Your task to perform on an android device: What's the weather going to be tomorrow? Image 0: 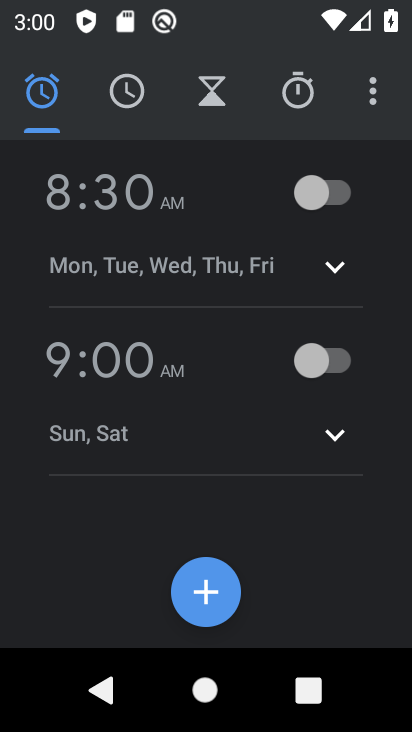
Step 0: drag from (332, 667) to (277, 143)
Your task to perform on an android device: What's the weather going to be tomorrow? Image 1: 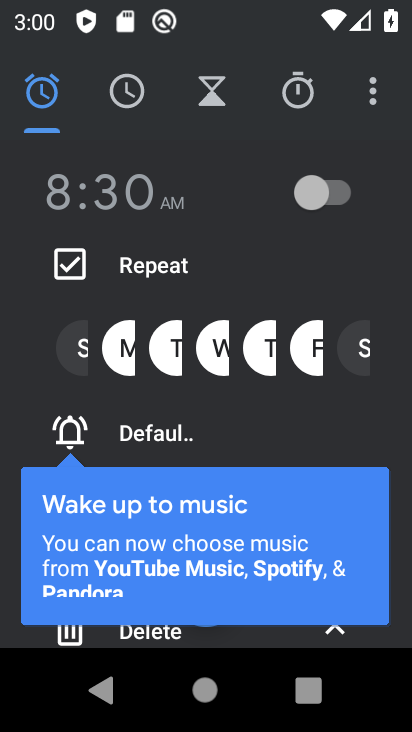
Step 1: press back button
Your task to perform on an android device: What's the weather going to be tomorrow? Image 2: 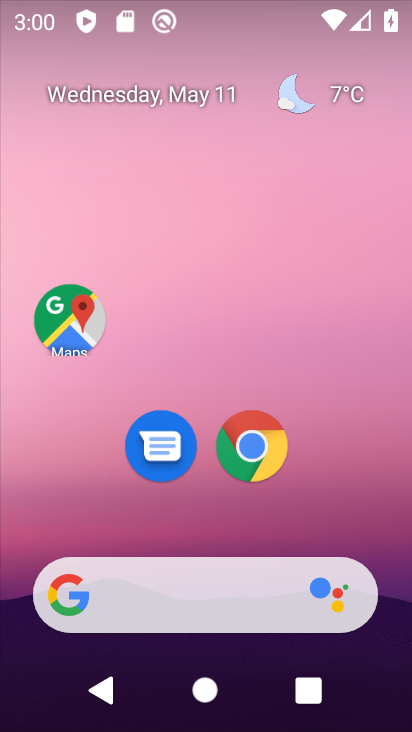
Step 2: drag from (367, 559) to (104, 123)
Your task to perform on an android device: What's the weather going to be tomorrow? Image 3: 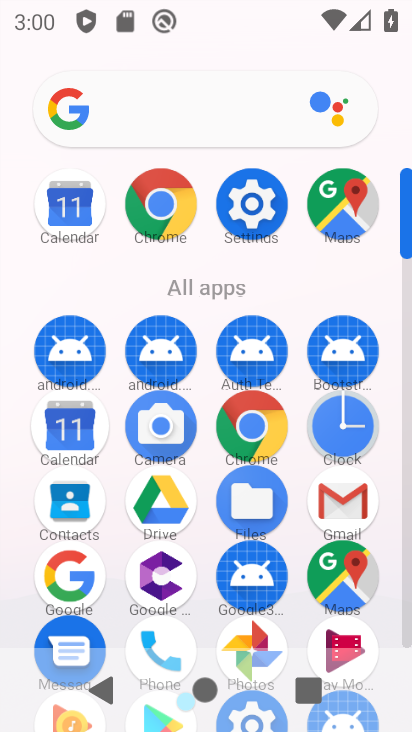
Step 3: press home button
Your task to perform on an android device: What's the weather going to be tomorrow? Image 4: 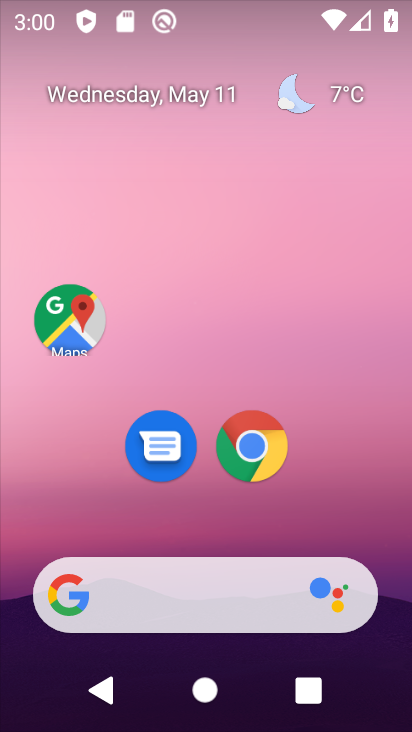
Step 4: click (292, 99)
Your task to perform on an android device: What's the weather going to be tomorrow? Image 5: 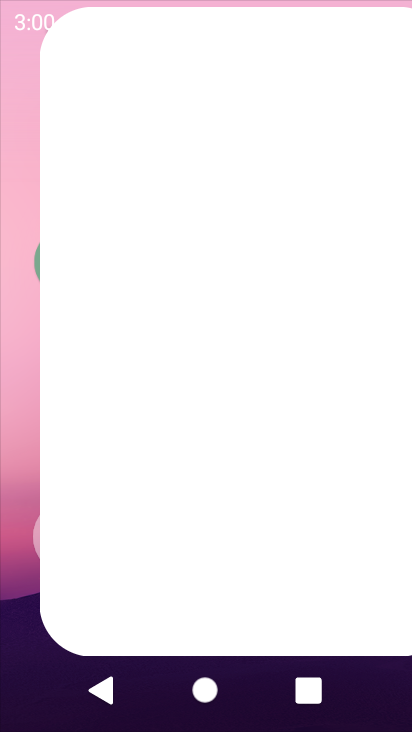
Step 5: click (292, 99)
Your task to perform on an android device: What's the weather going to be tomorrow? Image 6: 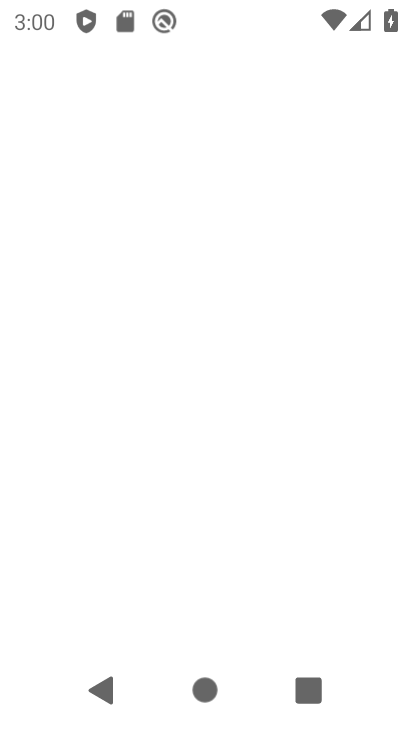
Step 6: click (292, 99)
Your task to perform on an android device: What's the weather going to be tomorrow? Image 7: 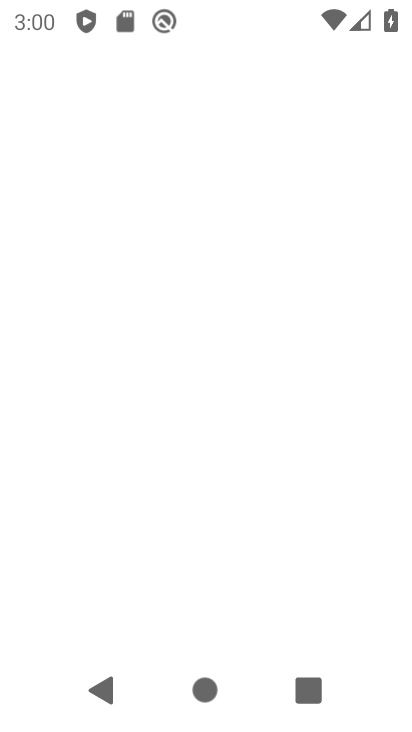
Step 7: click (292, 99)
Your task to perform on an android device: What's the weather going to be tomorrow? Image 8: 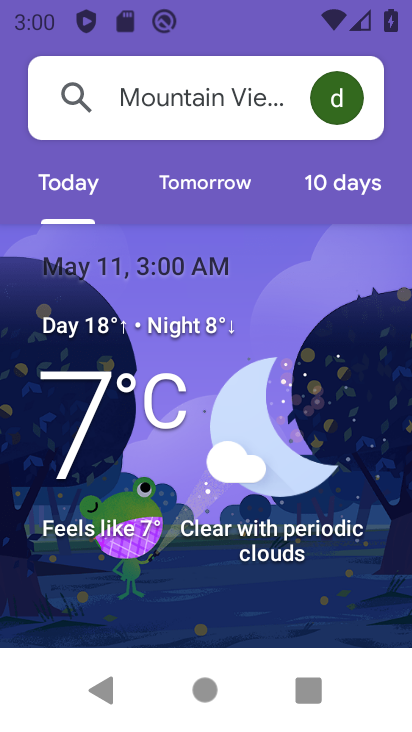
Step 8: drag from (188, 479) to (129, 144)
Your task to perform on an android device: What's the weather going to be tomorrow? Image 9: 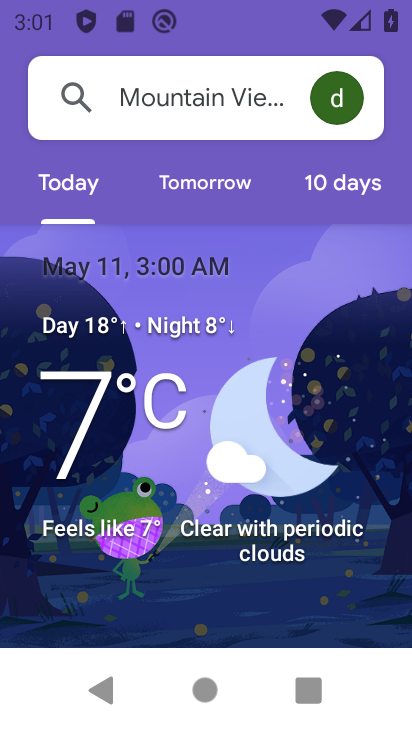
Step 9: click (205, 186)
Your task to perform on an android device: What's the weather going to be tomorrow? Image 10: 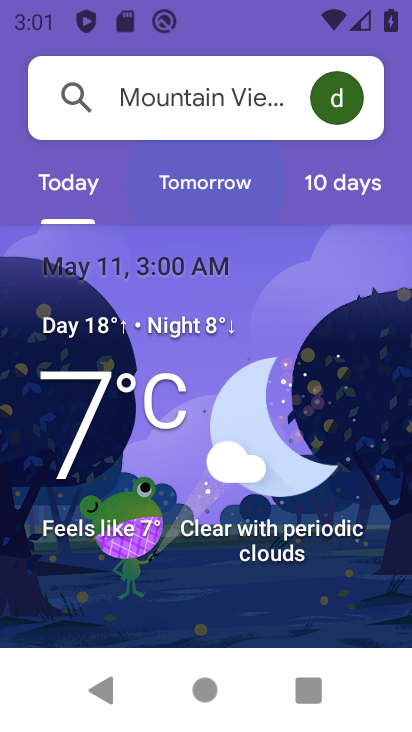
Step 10: click (207, 184)
Your task to perform on an android device: What's the weather going to be tomorrow? Image 11: 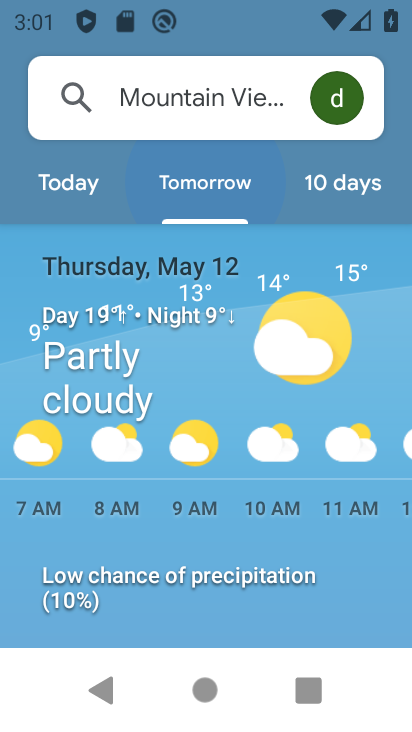
Step 11: click (209, 183)
Your task to perform on an android device: What's the weather going to be tomorrow? Image 12: 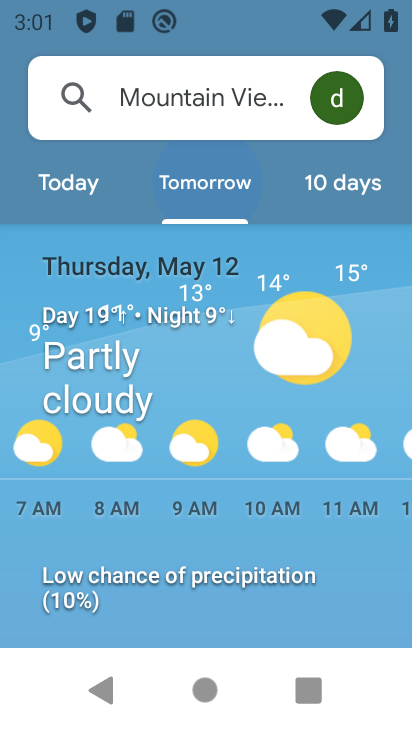
Step 12: click (209, 183)
Your task to perform on an android device: What's the weather going to be tomorrow? Image 13: 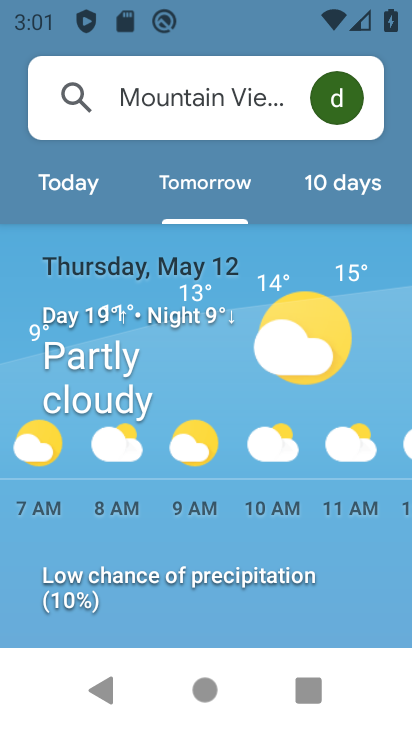
Step 13: drag from (272, 618) to (246, 244)
Your task to perform on an android device: What's the weather going to be tomorrow? Image 14: 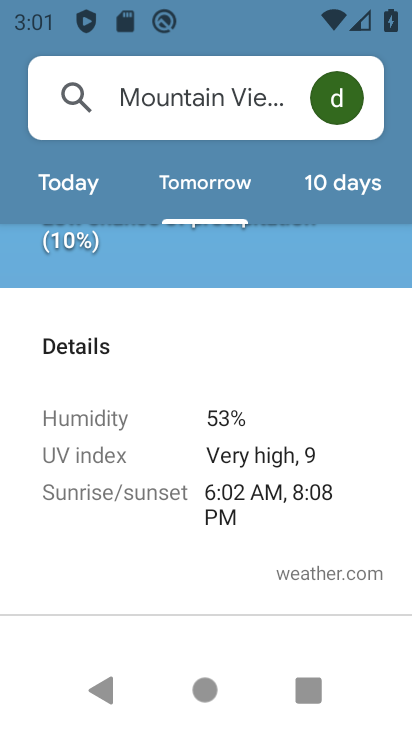
Step 14: drag from (294, 585) to (275, 284)
Your task to perform on an android device: What's the weather going to be tomorrow? Image 15: 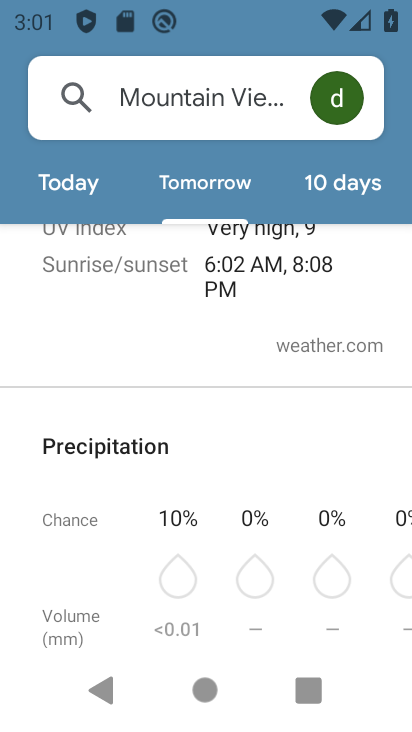
Step 15: drag from (266, 515) to (269, 147)
Your task to perform on an android device: What's the weather going to be tomorrow? Image 16: 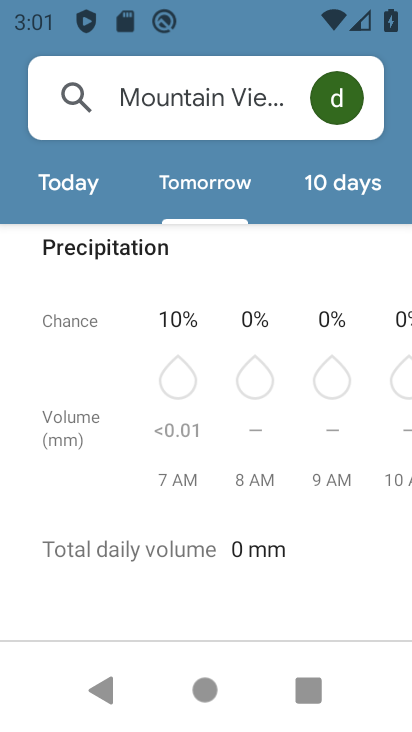
Step 16: drag from (237, 544) to (175, 233)
Your task to perform on an android device: What's the weather going to be tomorrow? Image 17: 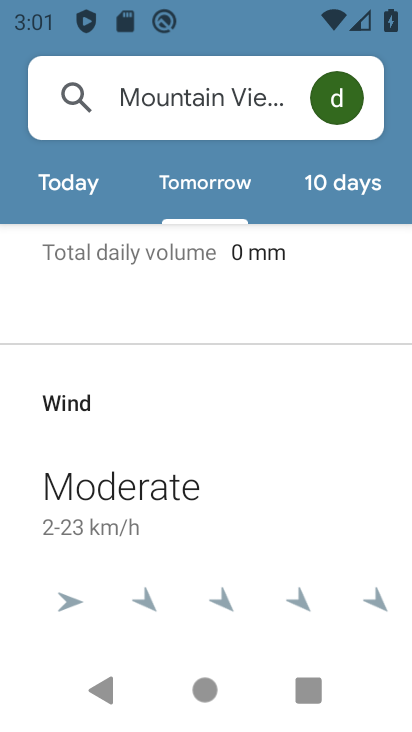
Step 17: drag from (177, 580) to (174, 273)
Your task to perform on an android device: What's the weather going to be tomorrow? Image 18: 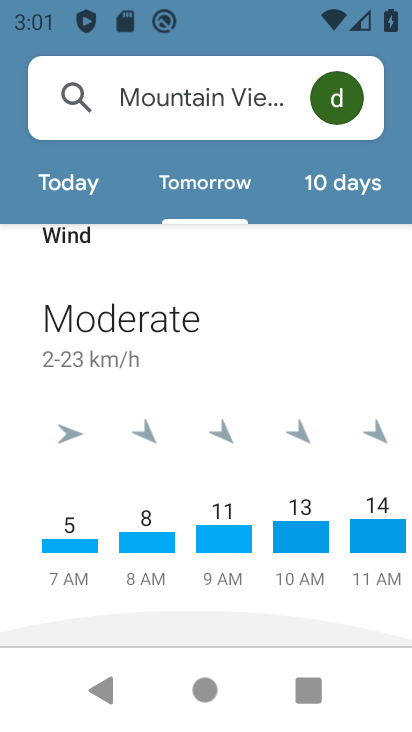
Step 18: drag from (261, 643) to (171, 224)
Your task to perform on an android device: What's the weather going to be tomorrow? Image 19: 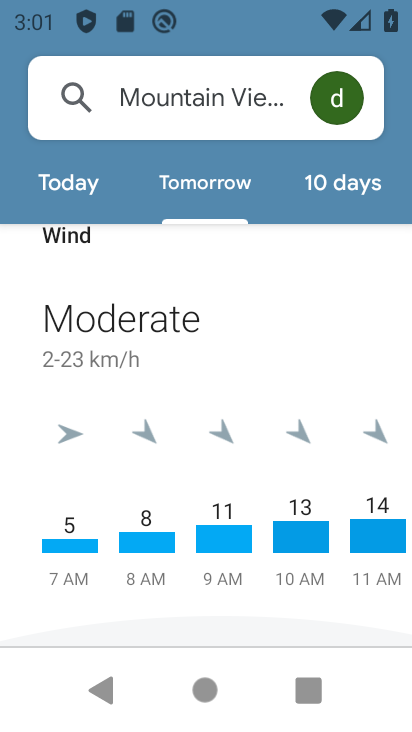
Step 19: drag from (214, 594) to (158, 281)
Your task to perform on an android device: What's the weather going to be tomorrow? Image 20: 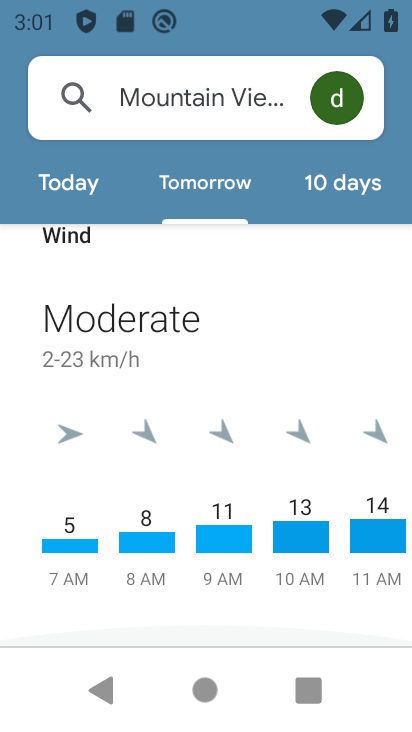
Step 20: drag from (219, 555) to (257, 405)
Your task to perform on an android device: What's the weather going to be tomorrow? Image 21: 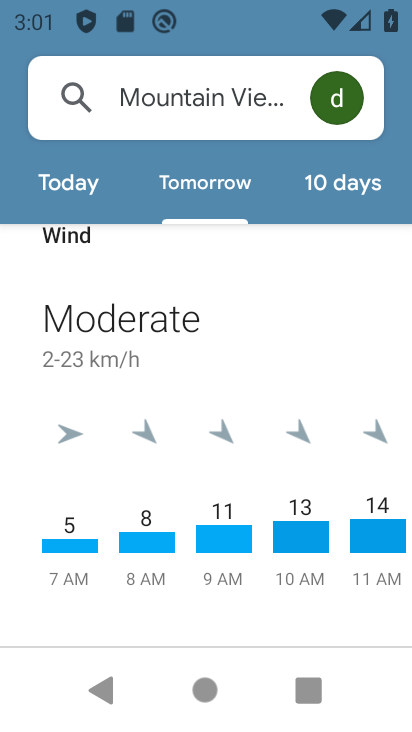
Step 21: drag from (295, 397) to (295, 278)
Your task to perform on an android device: What's the weather going to be tomorrow? Image 22: 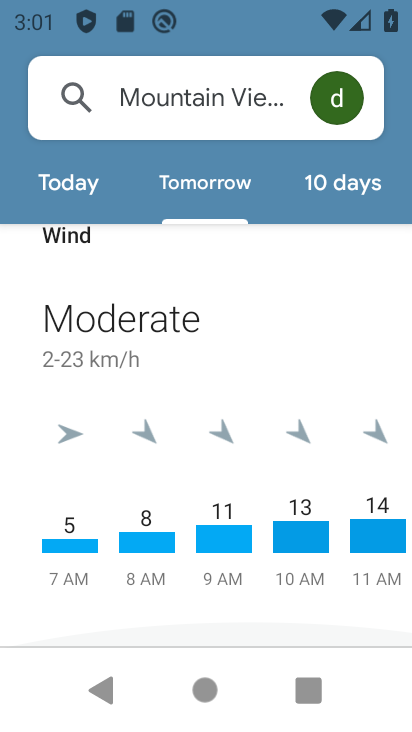
Step 22: drag from (306, 388) to (285, 307)
Your task to perform on an android device: What's the weather going to be tomorrow? Image 23: 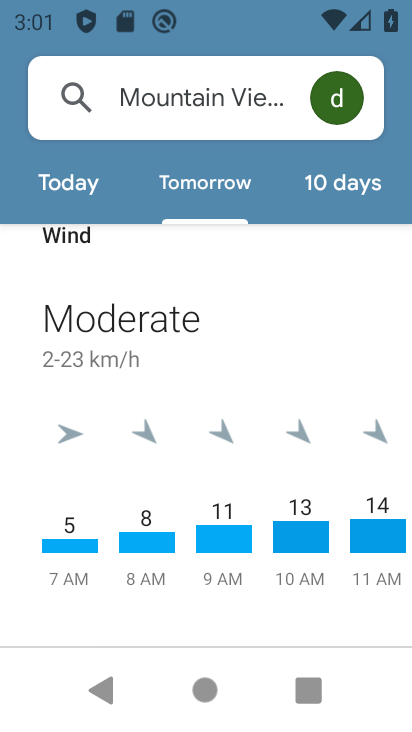
Step 23: drag from (259, 553) to (216, 419)
Your task to perform on an android device: What's the weather going to be tomorrow? Image 24: 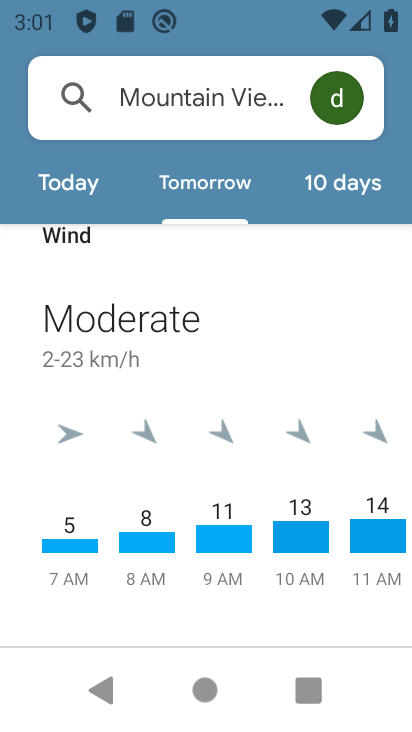
Step 24: drag from (246, 592) to (244, 364)
Your task to perform on an android device: What's the weather going to be tomorrow? Image 25: 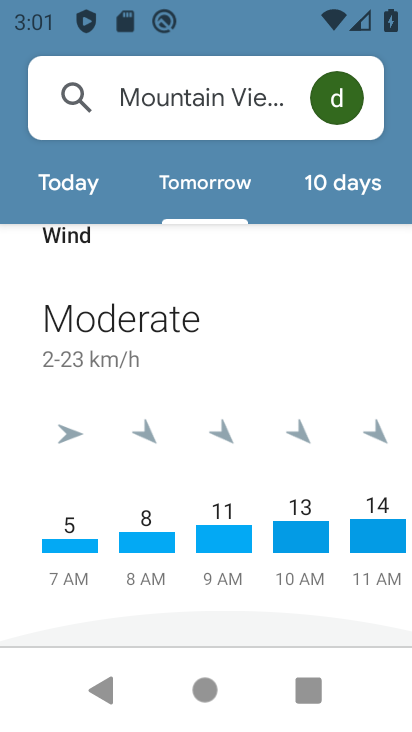
Step 25: drag from (278, 572) to (254, 373)
Your task to perform on an android device: What's the weather going to be tomorrow? Image 26: 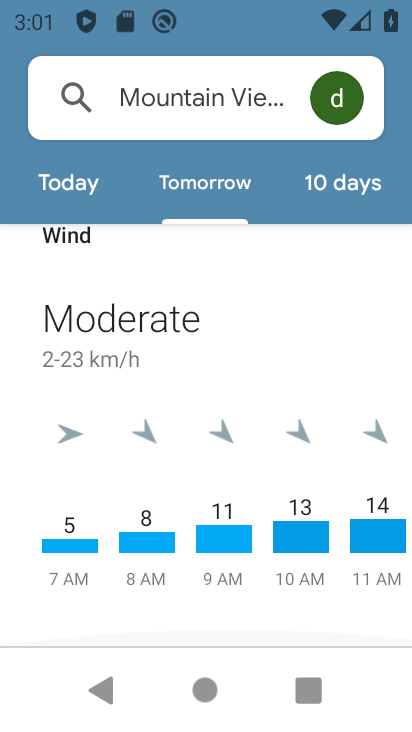
Step 26: drag from (284, 539) to (233, 238)
Your task to perform on an android device: What's the weather going to be tomorrow? Image 27: 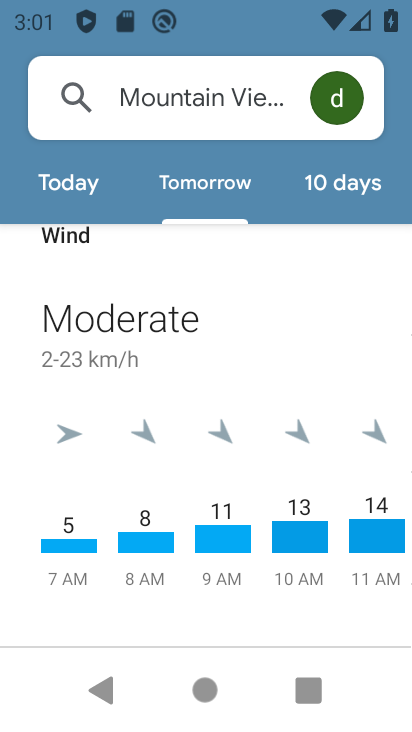
Step 27: drag from (243, 316) to (230, 221)
Your task to perform on an android device: What's the weather going to be tomorrow? Image 28: 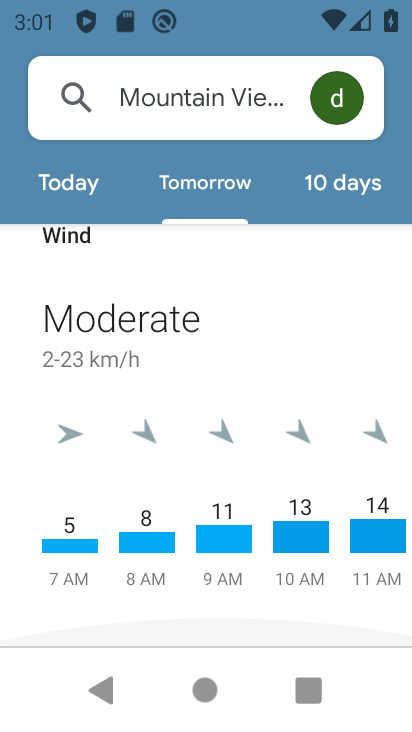
Step 28: drag from (264, 527) to (221, 371)
Your task to perform on an android device: What's the weather going to be tomorrow? Image 29: 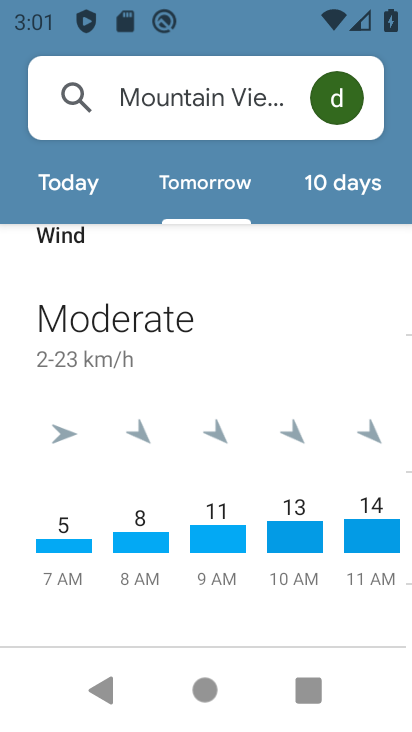
Step 29: drag from (251, 428) to (249, 278)
Your task to perform on an android device: What's the weather going to be tomorrow? Image 30: 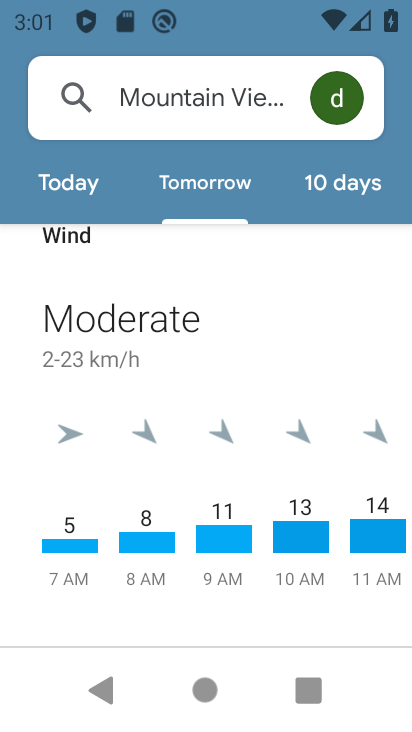
Step 30: drag from (330, 475) to (331, 282)
Your task to perform on an android device: What's the weather going to be tomorrow? Image 31: 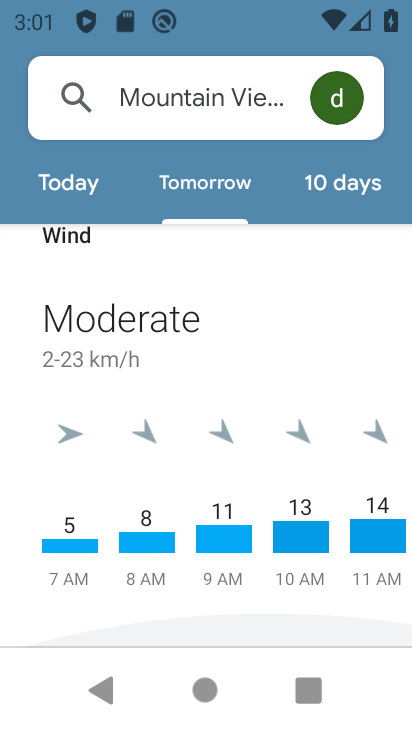
Step 31: drag from (325, 299) to (323, 231)
Your task to perform on an android device: What's the weather going to be tomorrow? Image 32: 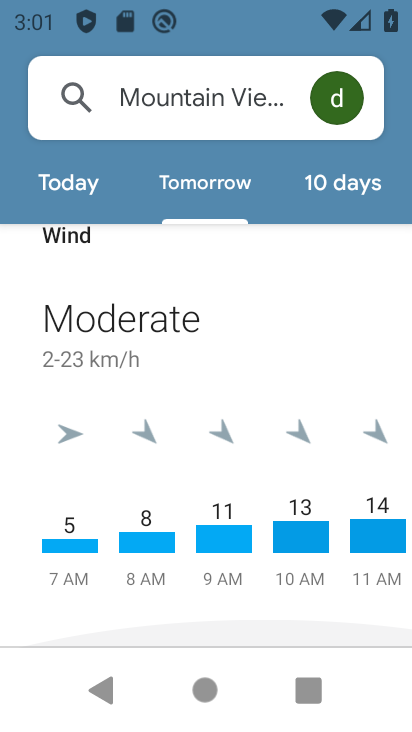
Step 32: drag from (308, 543) to (301, 233)
Your task to perform on an android device: What's the weather going to be tomorrow? Image 33: 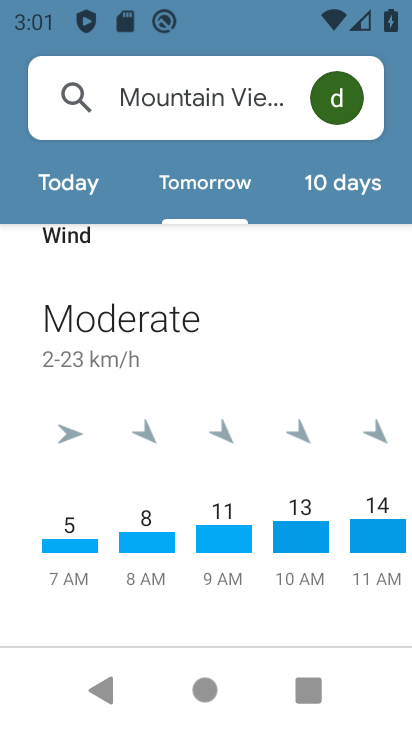
Step 33: drag from (306, 315) to (313, 550)
Your task to perform on an android device: What's the weather going to be tomorrow? Image 34: 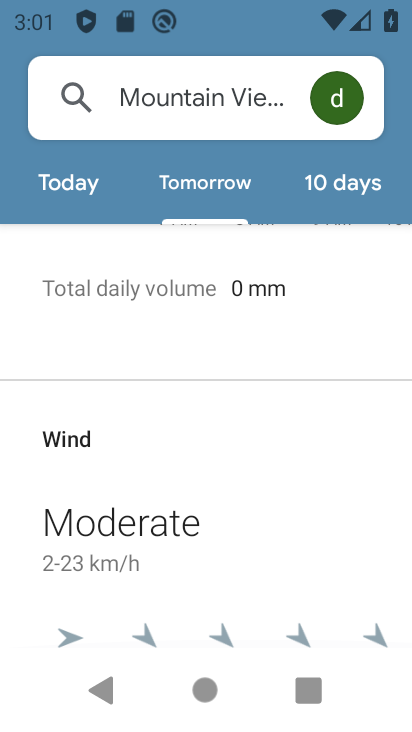
Step 34: drag from (283, 318) to (273, 584)
Your task to perform on an android device: What's the weather going to be tomorrow? Image 35: 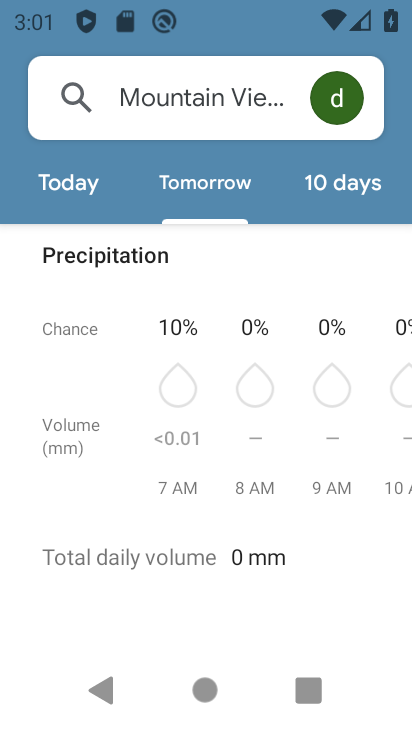
Step 35: drag from (235, 412) to (241, 568)
Your task to perform on an android device: What's the weather going to be tomorrow? Image 36: 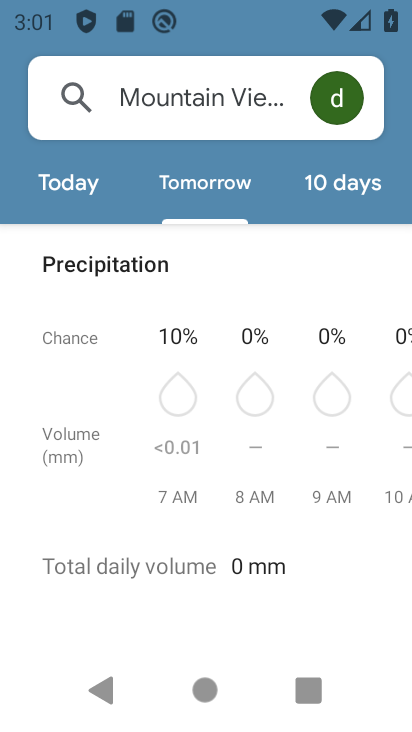
Step 36: drag from (242, 470) to (242, 716)
Your task to perform on an android device: What's the weather going to be tomorrow? Image 37: 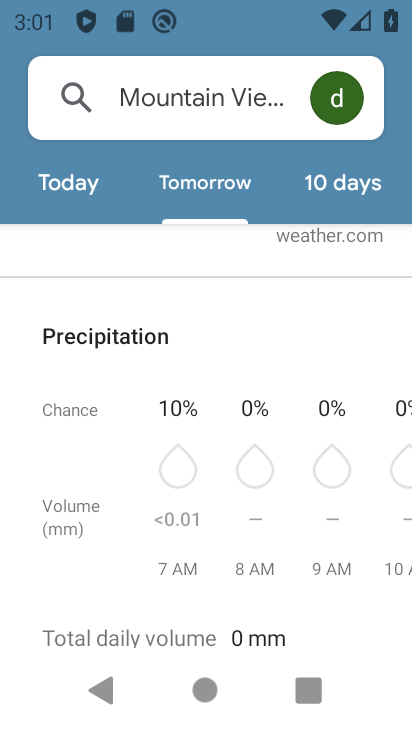
Step 37: drag from (223, 530) to (229, 710)
Your task to perform on an android device: What's the weather going to be tomorrow? Image 38: 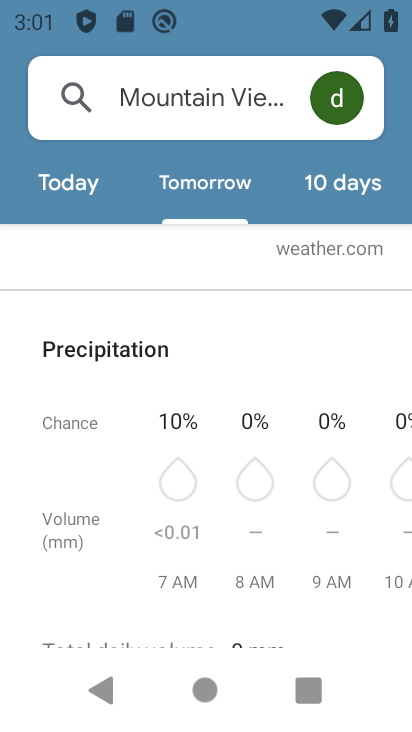
Step 38: click (227, 680)
Your task to perform on an android device: What's the weather going to be tomorrow? Image 39: 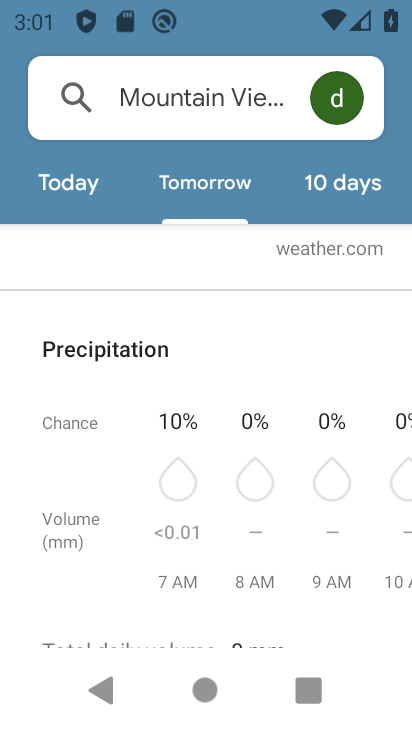
Step 39: task complete